Your task to perform on an android device: turn on showing notifications on the lock screen Image 0: 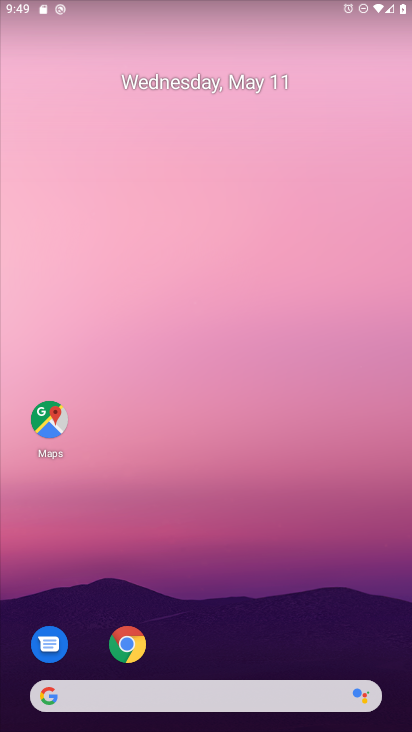
Step 0: drag from (255, 564) to (164, 142)
Your task to perform on an android device: turn on showing notifications on the lock screen Image 1: 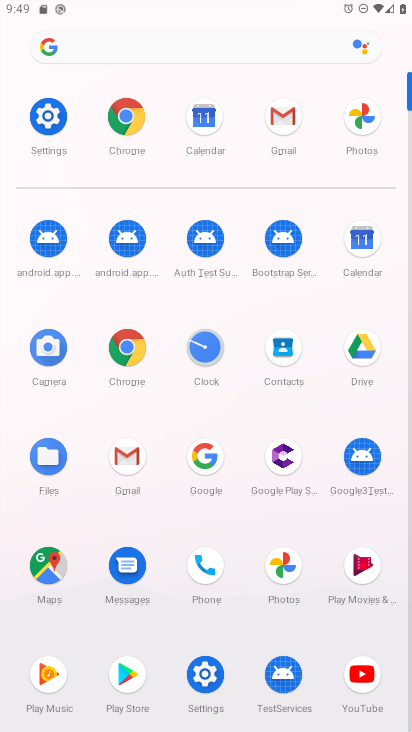
Step 1: click (43, 113)
Your task to perform on an android device: turn on showing notifications on the lock screen Image 2: 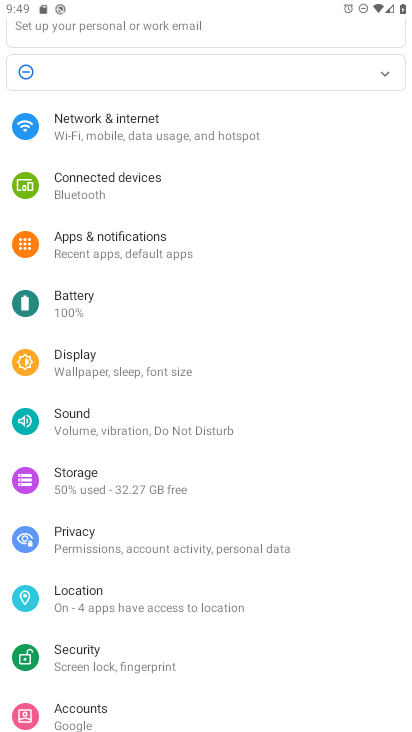
Step 2: click (133, 237)
Your task to perform on an android device: turn on showing notifications on the lock screen Image 3: 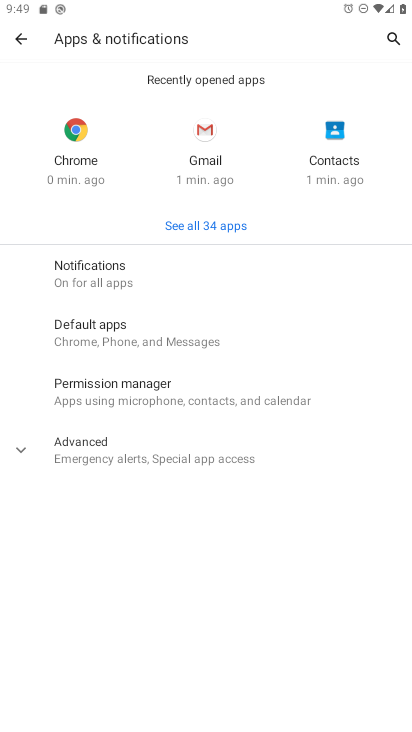
Step 3: click (79, 269)
Your task to perform on an android device: turn on showing notifications on the lock screen Image 4: 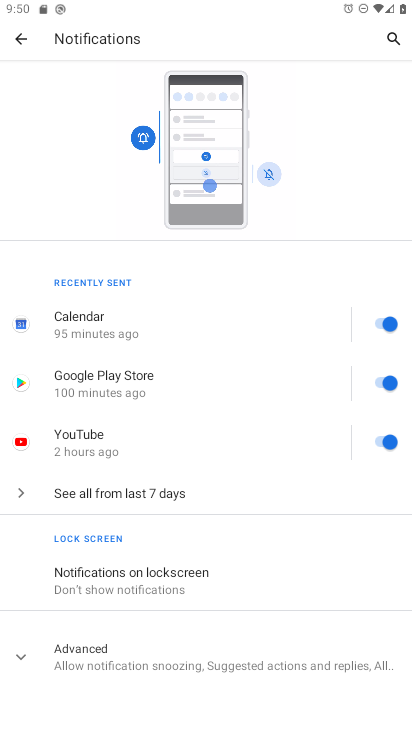
Step 4: drag from (183, 587) to (183, 415)
Your task to perform on an android device: turn on showing notifications on the lock screen Image 5: 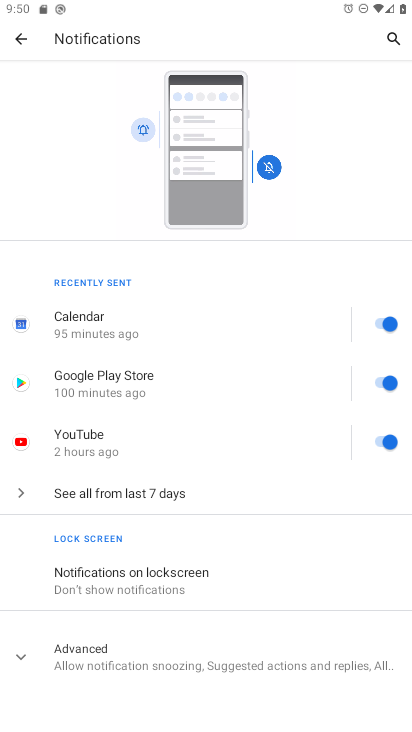
Step 5: click (143, 570)
Your task to perform on an android device: turn on showing notifications on the lock screen Image 6: 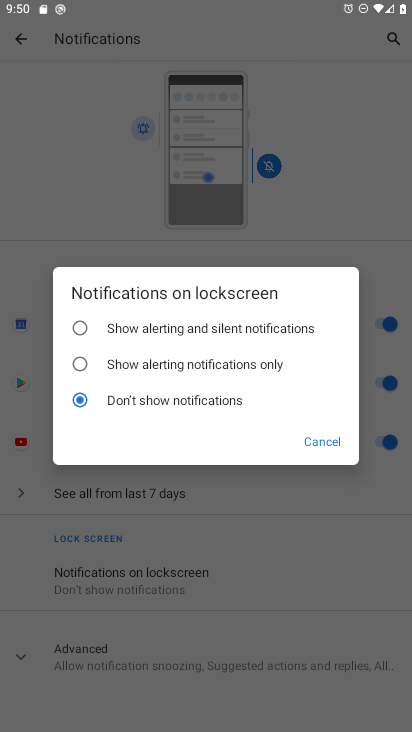
Step 6: click (77, 326)
Your task to perform on an android device: turn on showing notifications on the lock screen Image 7: 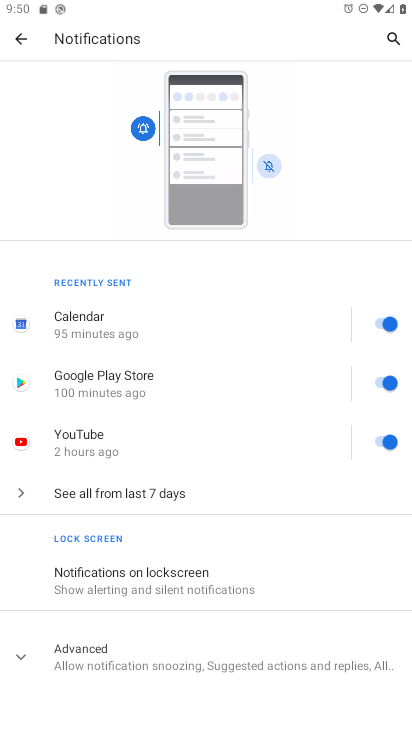
Step 7: task complete